Your task to perform on an android device: toggle notifications settings in the gmail app Image 0: 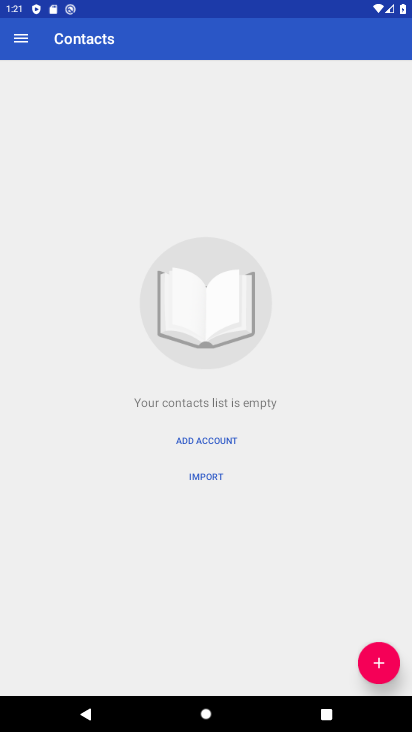
Step 0: press home button
Your task to perform on an android device: toggle notifications settings in the gmail app Image 1: 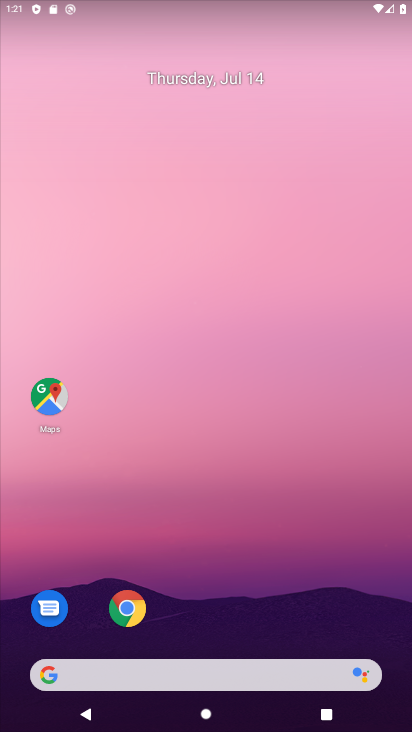
Step 1: drag from (219, 613) to (230, 203)
Your task to perform on an android device: toggle notifications settings in the gmail app Image 2: 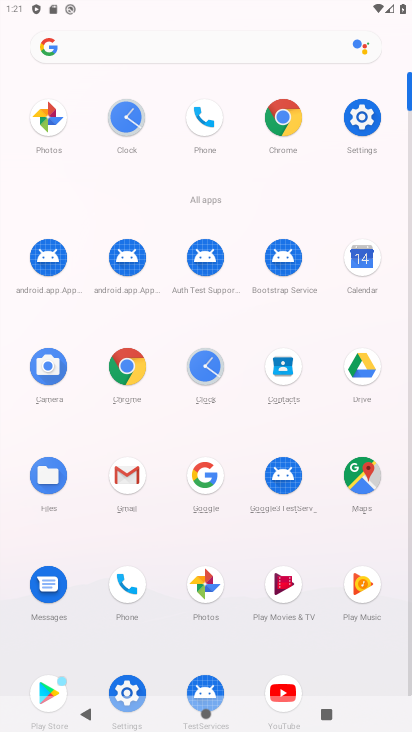
Step 2: click (129, 510)
Your task to perform on an android device: toggle notifications settings in the gmail app Image 3: 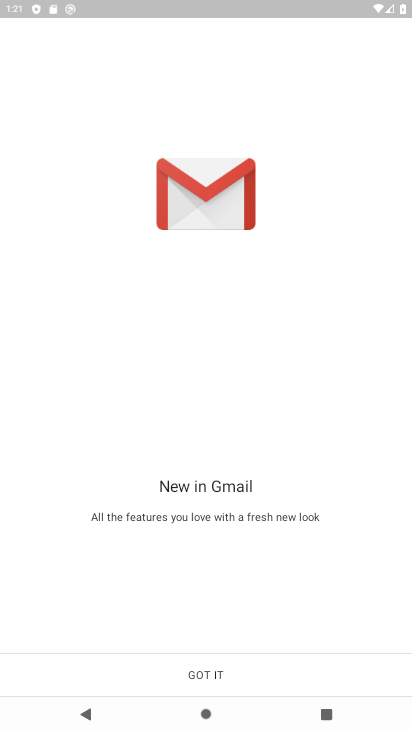
Step 3: click (263, 671)
Your task to perform on an android device: toggle notifications settings in the gmail app Image 4: 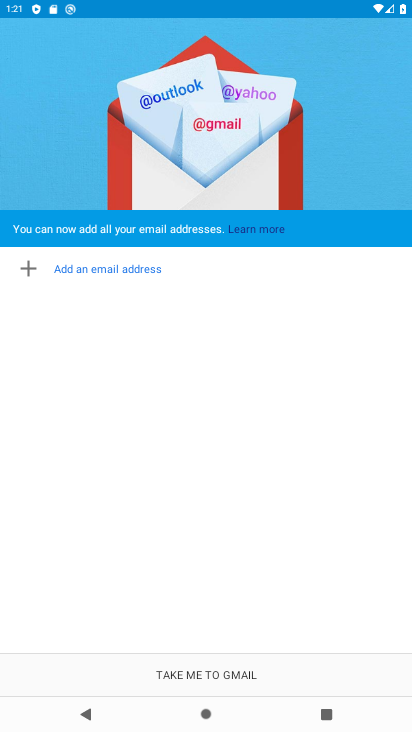
Step 4: click (258, 674)
Your task to perform on an android device: toggle notifications settings in the gmail app Image 5: 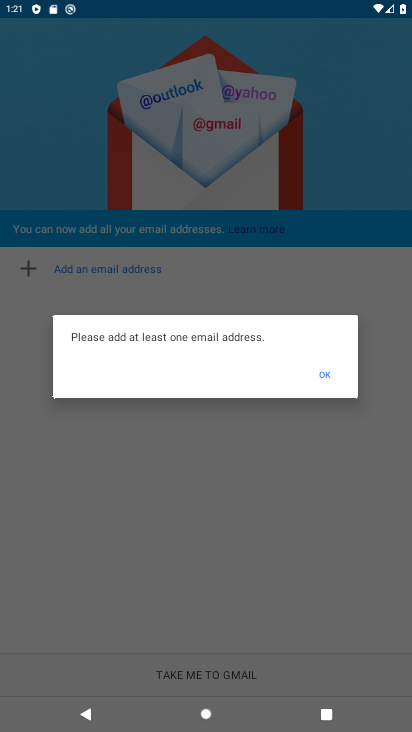
Step 5: click (327, 371)
Your task to perform on an android device: toggle notifications settings in the gmail app Image 6: 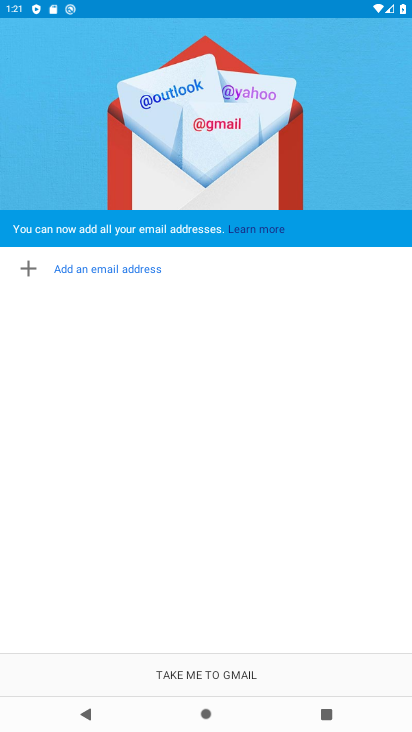
Step 6: task complete